Your task to perform on an android device: What's the weather going to be this weekend? Image 0: 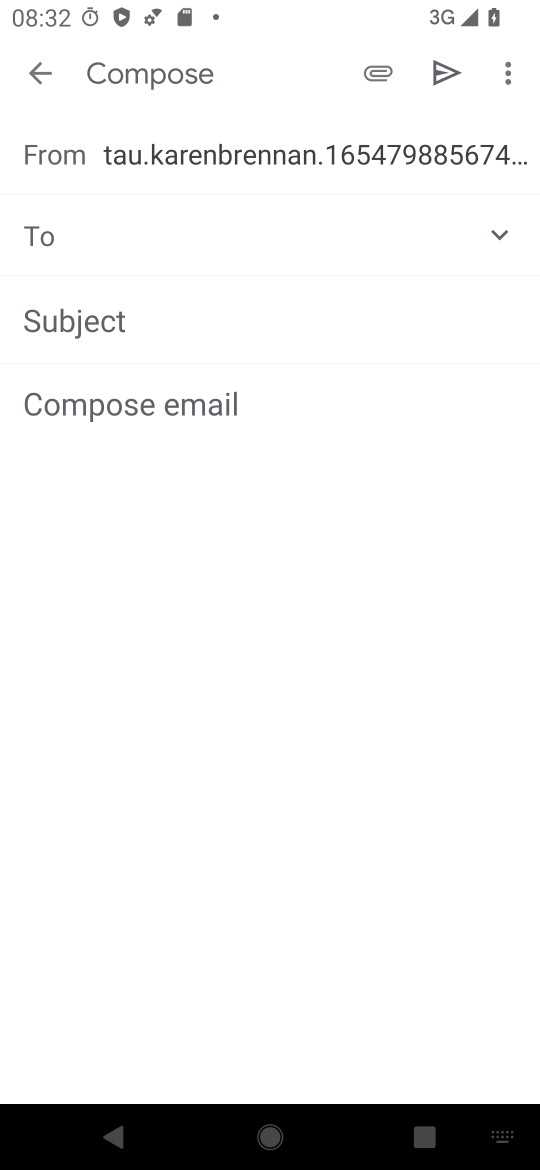
Step 0: press home button
Your task to perform on an android device: What's the weather going to be this weekend? Image 1: 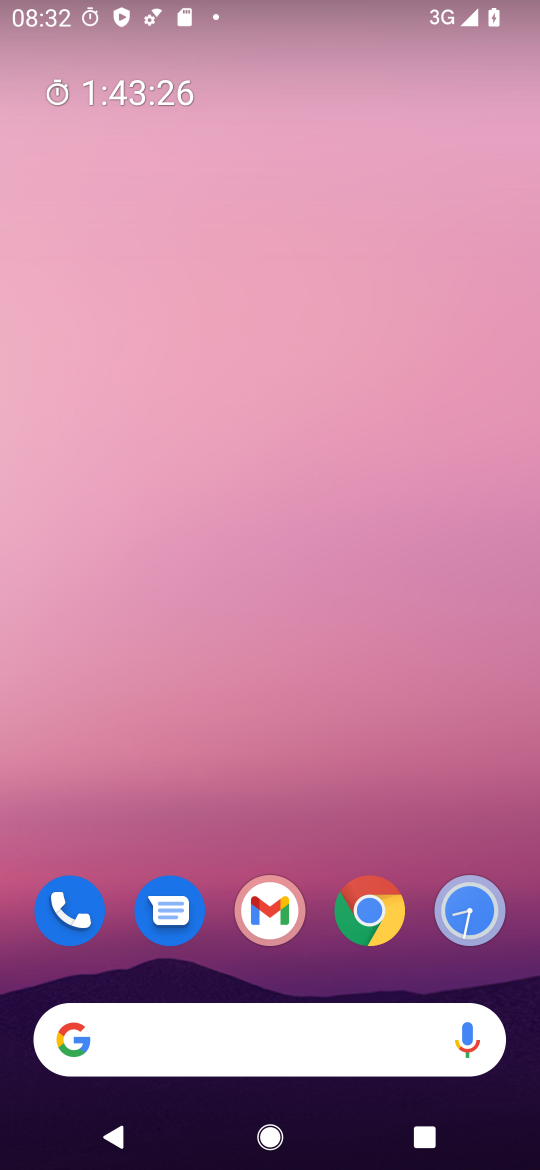
Step 1: drag from (249, 1010) to (319, 8)
Your task to perform on an android device: What's the weather going to be this weekend? Image 2: 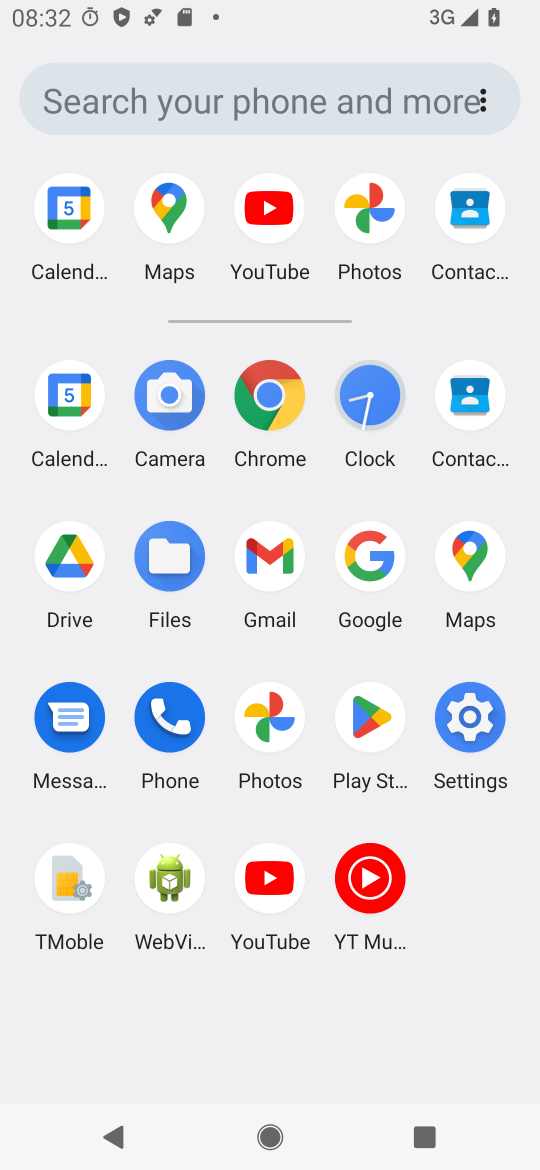
Step 2: click (355, 555)
Your task to perform on an android device: What's the weather going to be this weekend? Image 3: 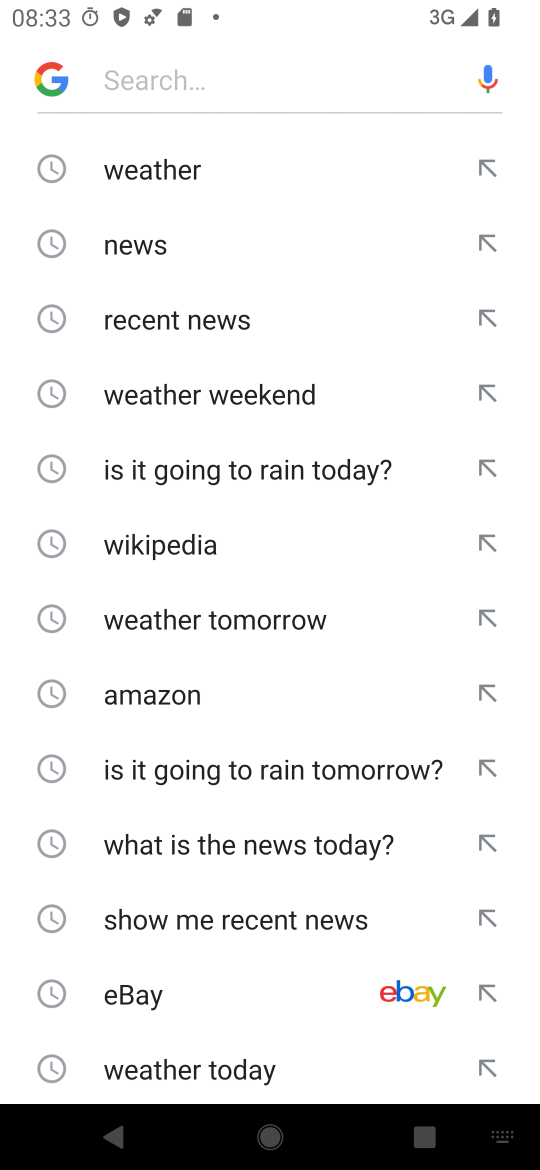
Step 3: type "weather going to be this weekend"
Your task to perform on an android device: What's the weather going to be this weekend? Image 4: 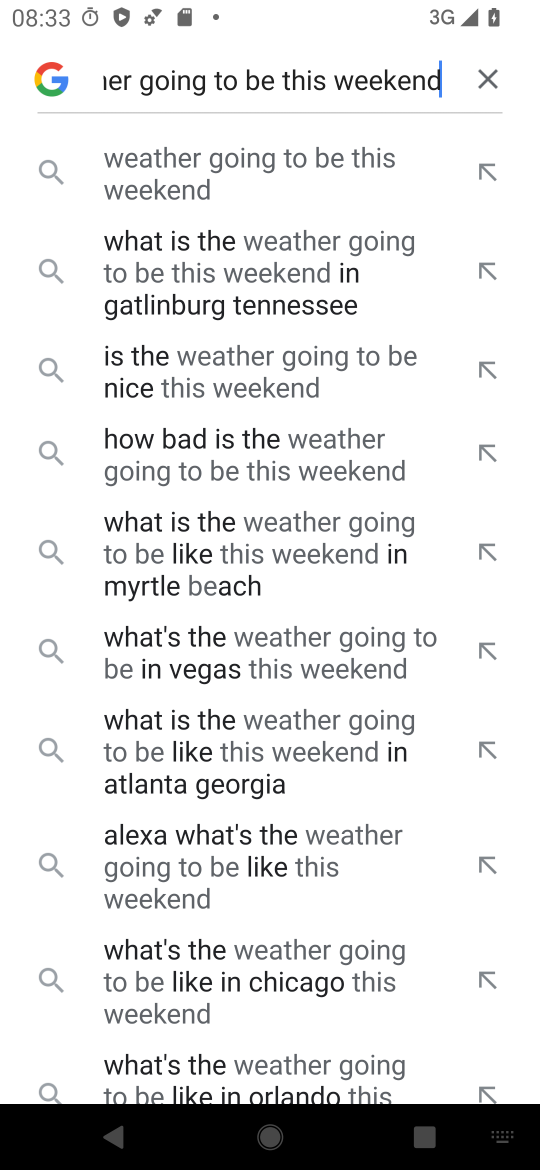
Step 4: click (268, 173)
Your task to perform on an android device: What's the weather going to be this weekend? Image 5: 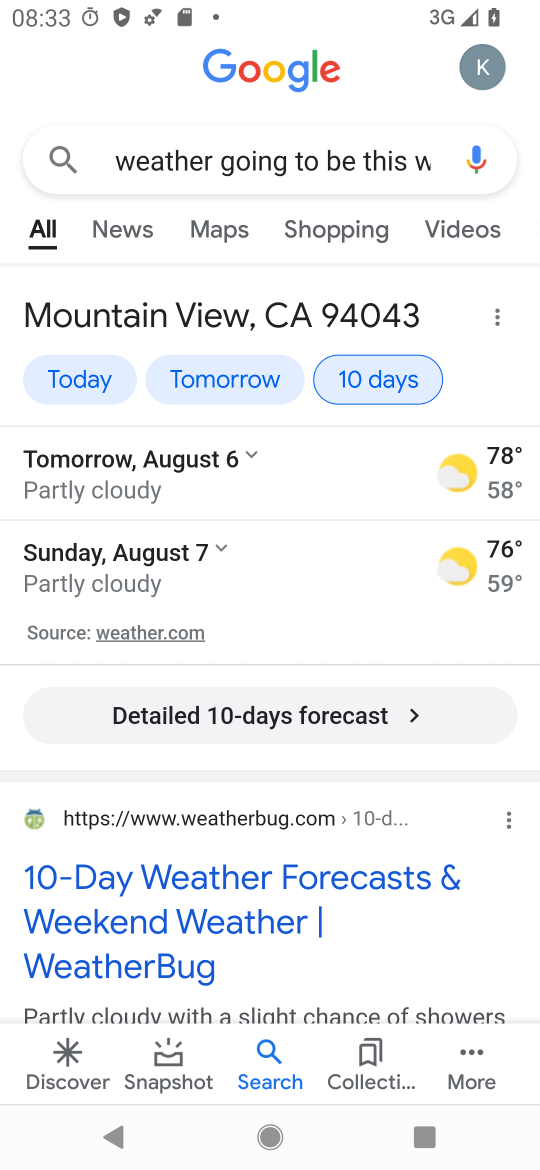
Step 5: task complete